Your task to perform on an android device: Open the calendar app, open the side menu, and click the "Day" option Image 0: 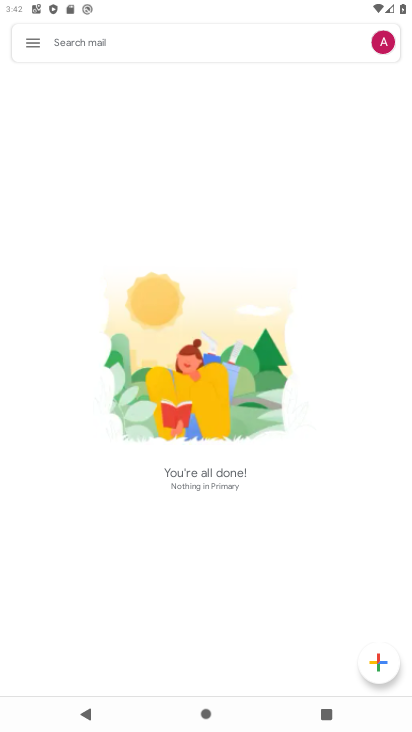
Step 0: press home button
Your task to perform on an android device: Open the calendar app, open the side menu, and click the "Day" option Image 1: 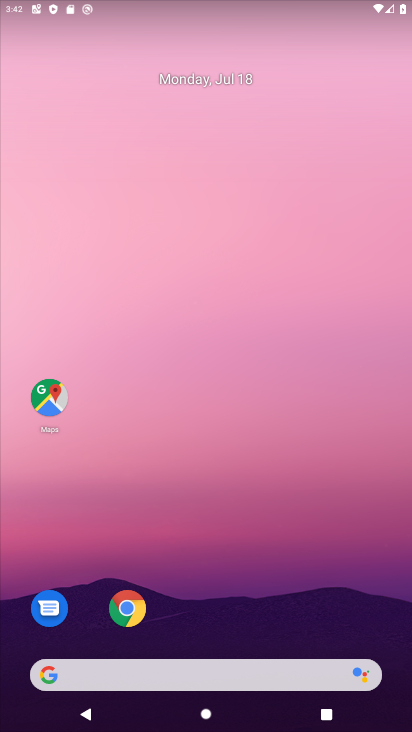
Step 1: drag from (223, 605) to (249, 468)
Your task to perform on an android device: Open the calendar app, open the side menu, and click the "Day" option Image 2: 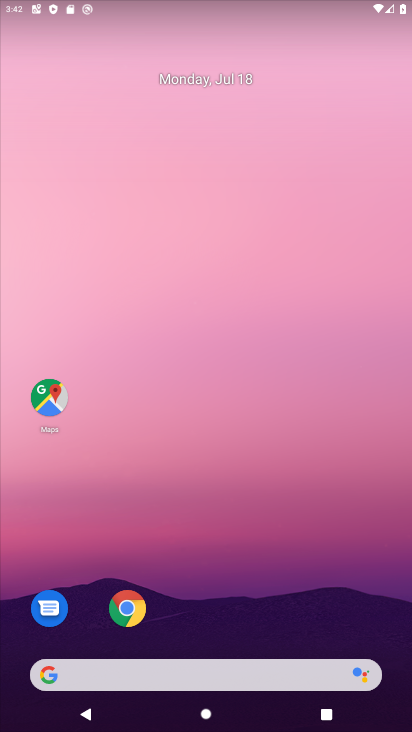
Step 2: drag from (286, 474) to (266, 0)
Your task to perform on an android device: Open the calendar app, open the side menu, and click the "Day" option Image 3: 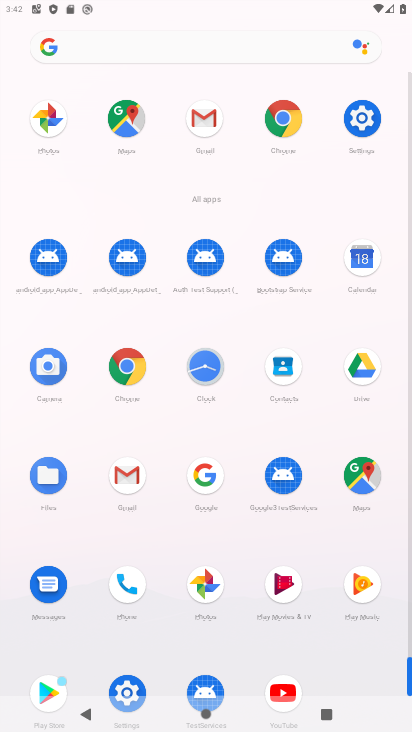
Step 3: click (361, 253)
Your task to perform on an android device: Open the calendar app, open the side menu, and click the "Day" option Image 4: 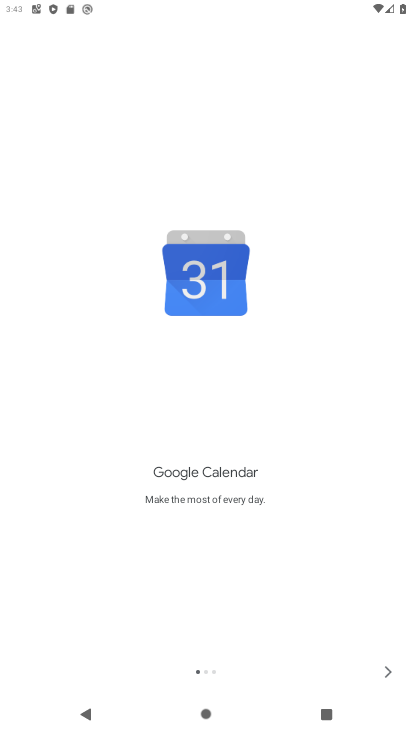
Step 4: click (388, 668)
Your task to perform on an android device: Open the calendar app, open the side menu, and click the "Day" option Image 5: 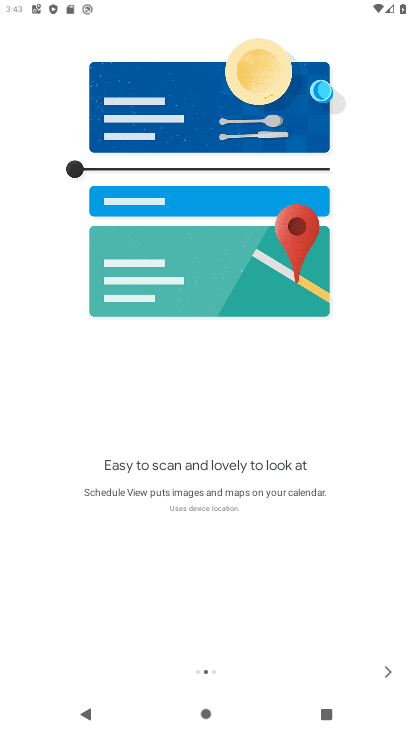
Step 5: click (392, 674)
Your task to perform on an android device: Open the calendar app, open the side menu, and click the "Day" option Image 6: 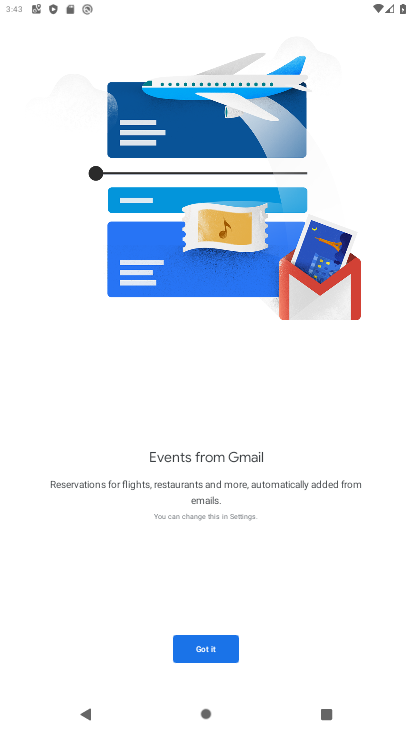
Step 6: click (205, 652)
Your task to perform on an android device: Open the calendar app, open the side menu, and click the "Day" option Image 7: 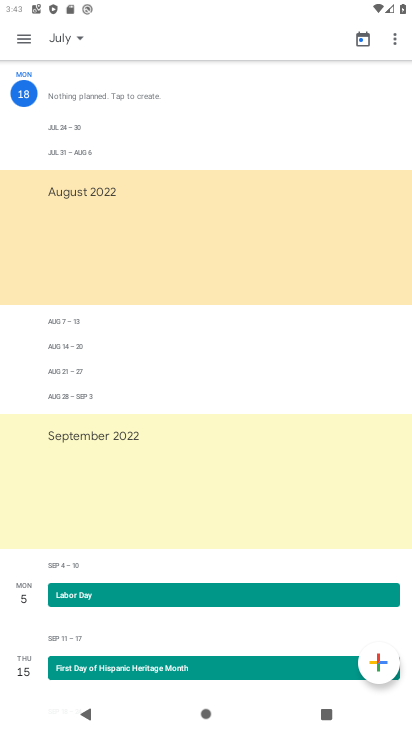
Step 7: click (25, 35)
Your task to perform on an android device: Open the calendar app, open the side menu, and click the "Day" option Image 8: 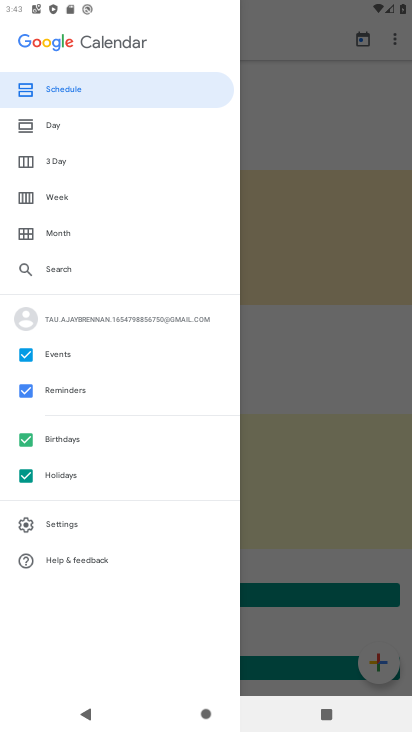
Step 8: click (51, 130)
Your task to perform on an android device: Open the calendar app, open the side menu, and click the "Day" option Image 9: 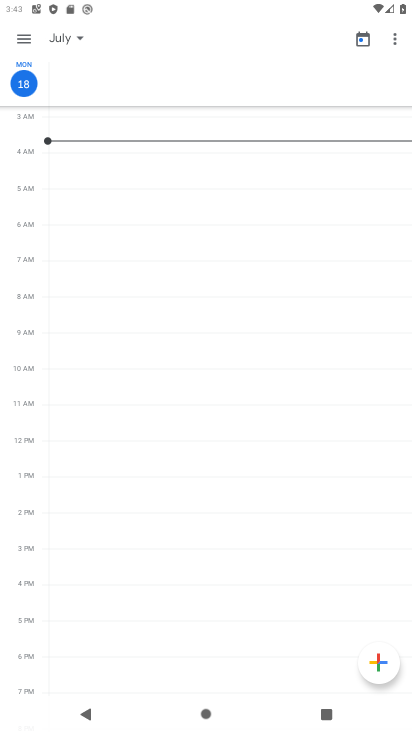
Step 9: task complete